Your task to perform on an android device: change timer sound Image 0: 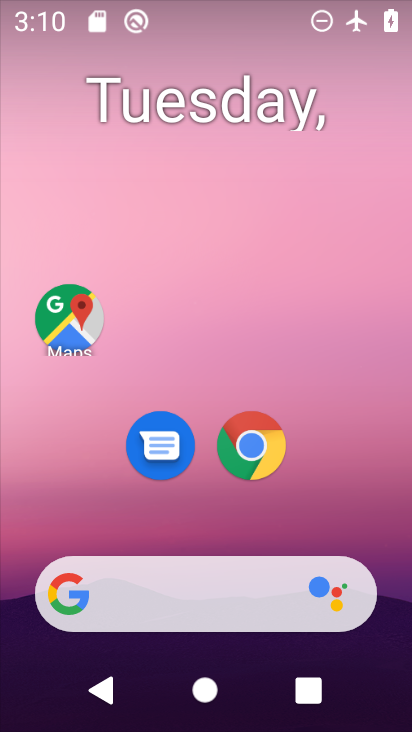
Step 0: drag from (342, 543) to (342, 27)
Your task to perform on an android device: change timer sound Image 1: 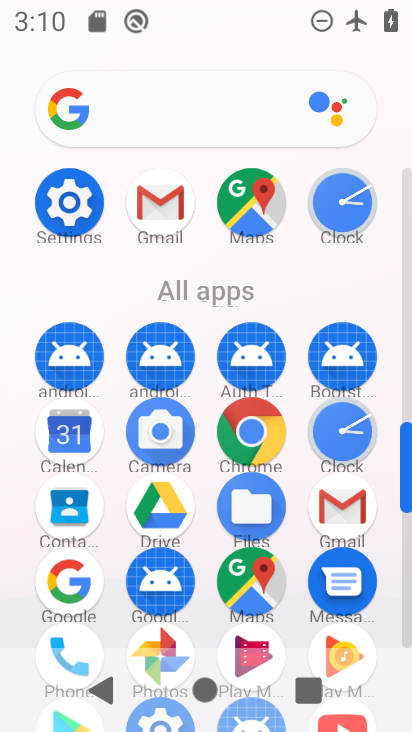
Step 1: click (341, 207)
Your task to perform on an android device: change timer sound Image 2: 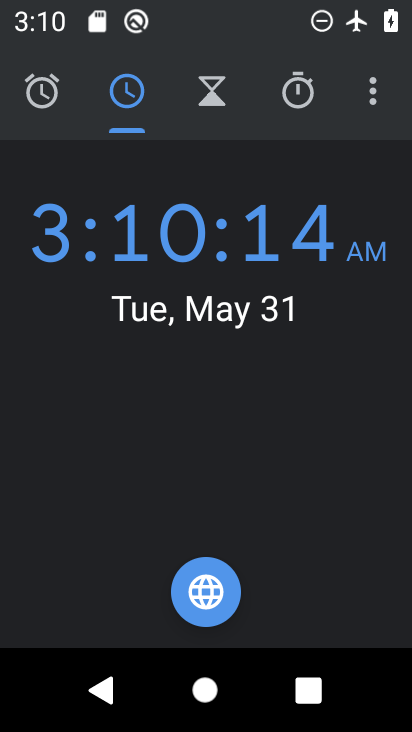
Step 2: click (376, 104)
Your task to perform on an android device: change timer sound Image 3: 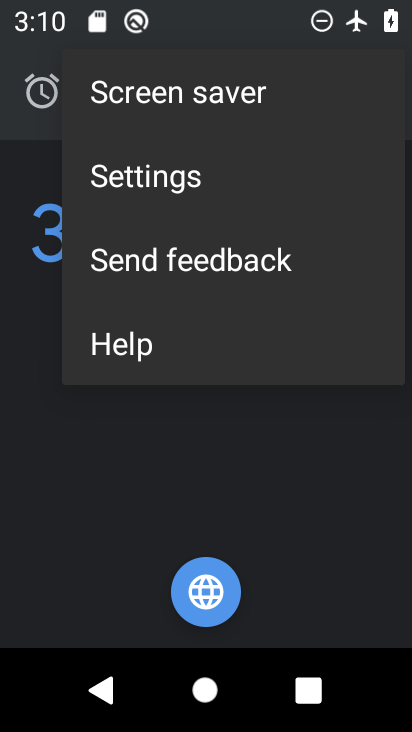
Step 3: click (134, 189)
Your task to perform on an android device: change timer sound Image 4: 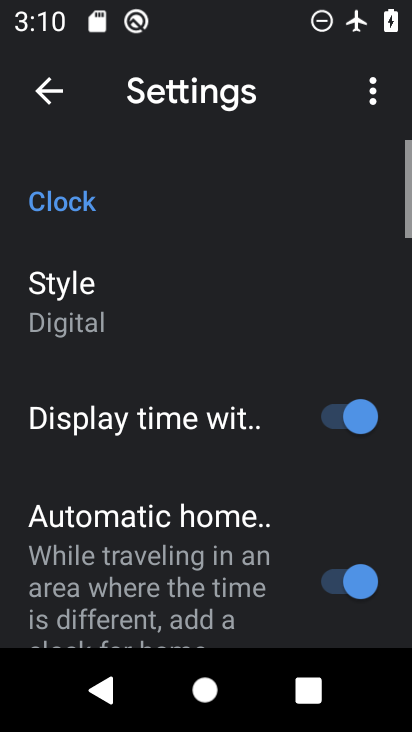
Step 4: drag from (163, 496) to (165, 138)
Your task to perform on an android device: change timer sound Image 5: 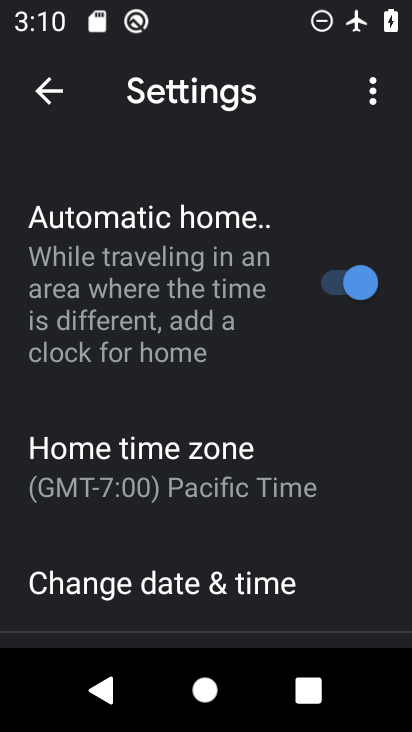
Step 5: drag from (171, 456) to (171, 123)
Your task to perform on an android device: change timer sound Image 6: 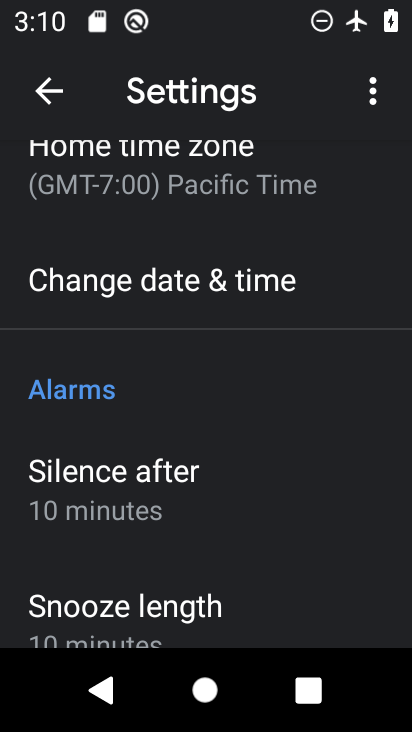
Step 6: drag from (147, 438) to (144, 106)
Your task to perform on an android device: change timer sound Image 7: 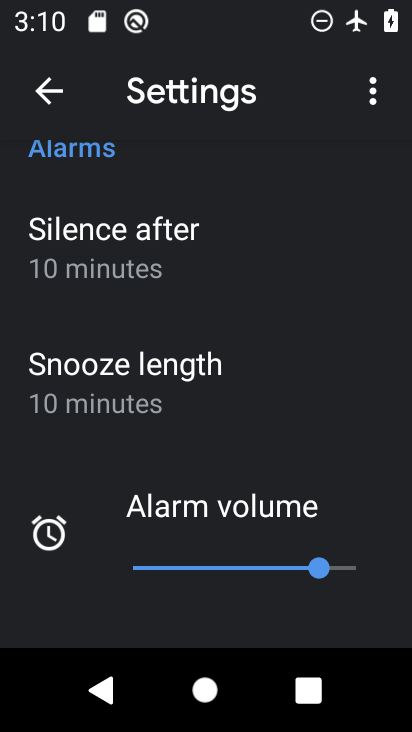
Step 7: drag from (129, 424) to (129, 89)
Your task to perform on an android device: change timer sound Image 8: 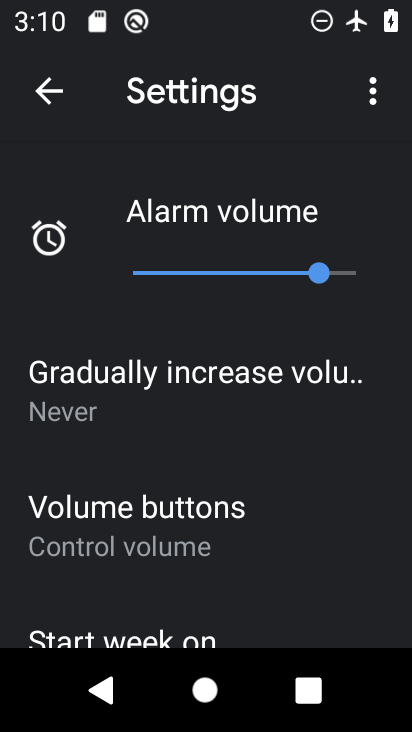
Step 8: drag from (118, 426) to (116, 140)
Your task to perform on an android device: change timer sound Image 9: 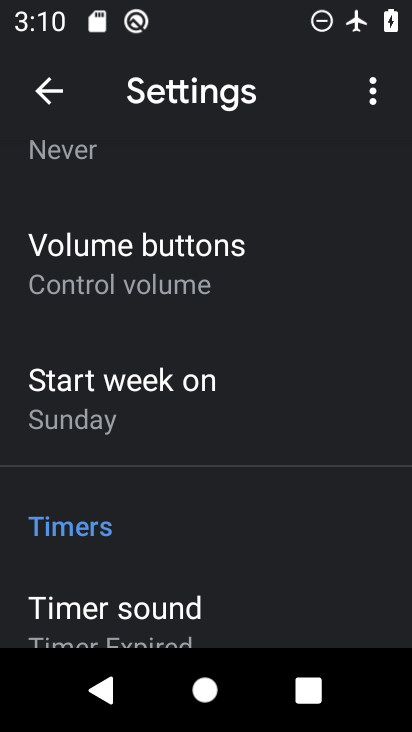
Step 9: drag from (124, 460) to (140, 181)
Your task to perform on an android device: change timer sound Image 10: 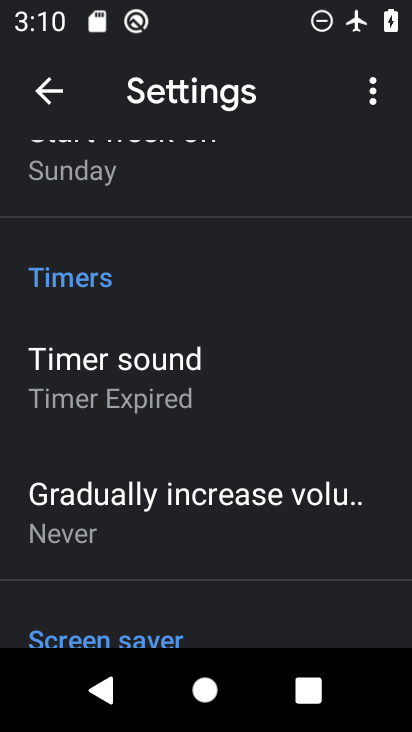
Step 10: click (91, 394)
Your task to perform on an android device: change timer sound Image 11: 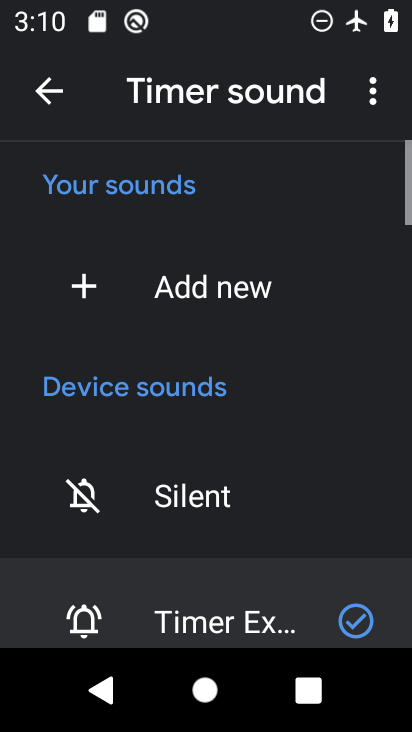
Step 11: drag from (307, 464) to (290, 181)
Your task to perform on an android device: change timer sound Image 12: 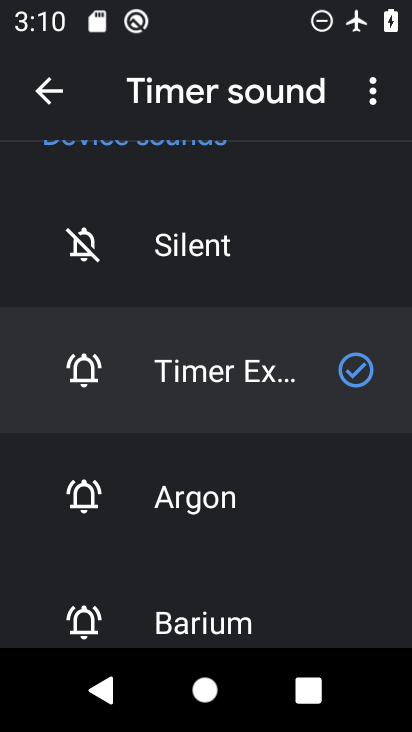
Step 12: click (192, 503)
Your task to perform on an android device: change timer sound Image 13: 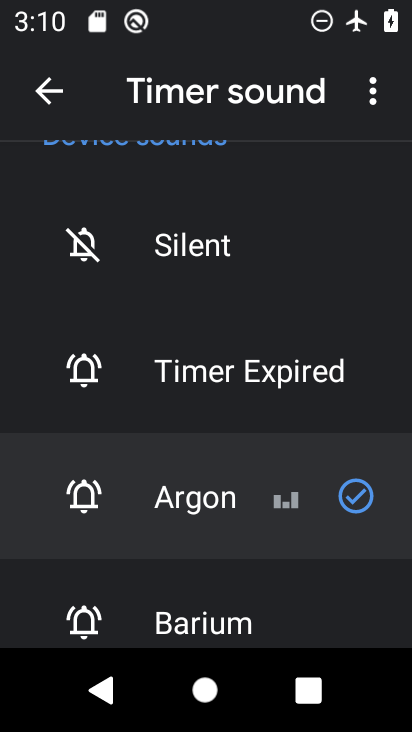
Step 13: task complete